Your task to perform on an android device: stop showing notifications on the lock screen Image 0: 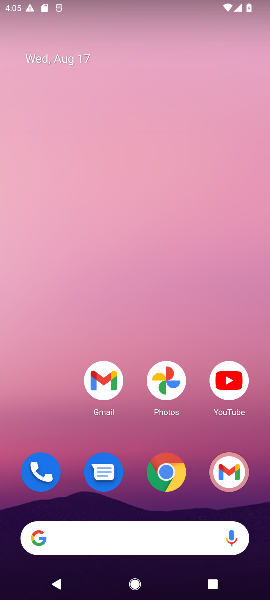
Step 0: drag from (114, 480) to (117, 106)
Your task to perform on an android device: stop showing notifications on the lock screen Image 1: 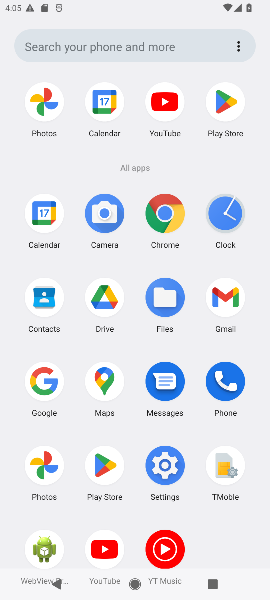
Step 1: click (161, 473)
Your task to perform on an android device: stop showing notifications on the lock screen Image 2: 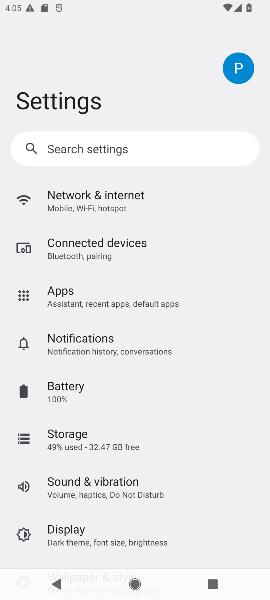
Step 2: click (90, 340)
Your task to perform on an android device: stop showing notifications on the lock screen Image 3: 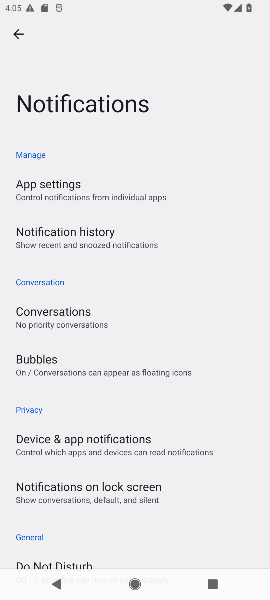
Step 3: click (83, 494)
Your task to perform on an android device: stop showing notifications on the lock screen Image 4: 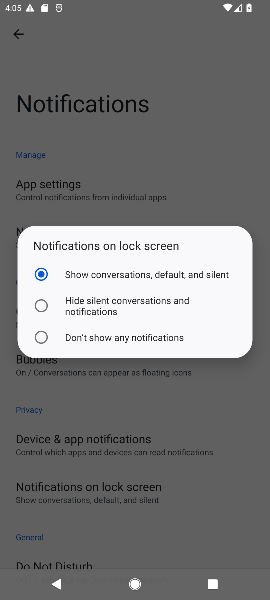
Step 4: click (73, 339)
Your task to perform on an android device: stop showing notifications on the lock screen Image 5: 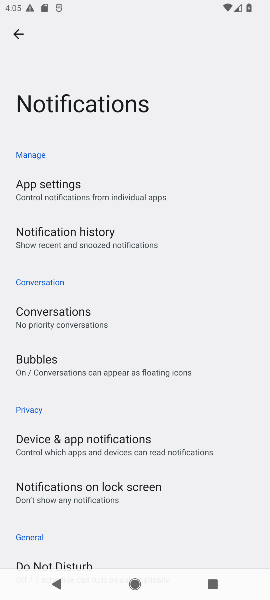
Step 5: task complete